Your task to perform on an android device: Open accessibility settings Image 0: 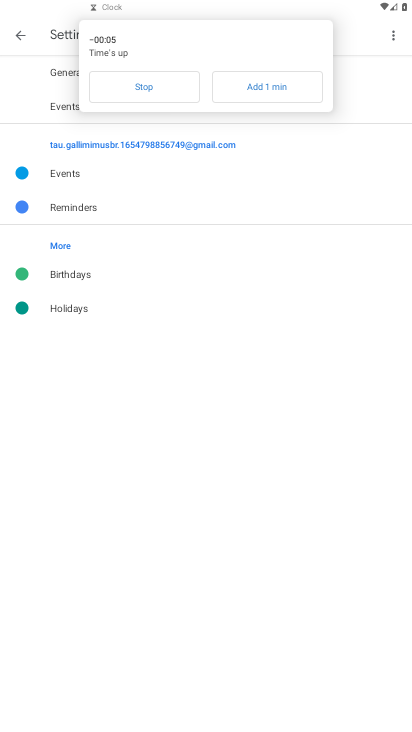
Step 0: press home button
Your task to perform on an android device: Open accessibility settings Image 1: 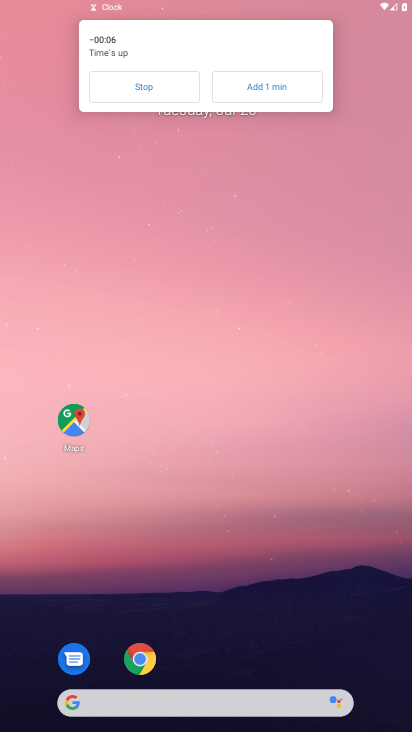
Step 1: click (160, 90)
Your task to perform on an android device: Open accessibility settings Image 2: 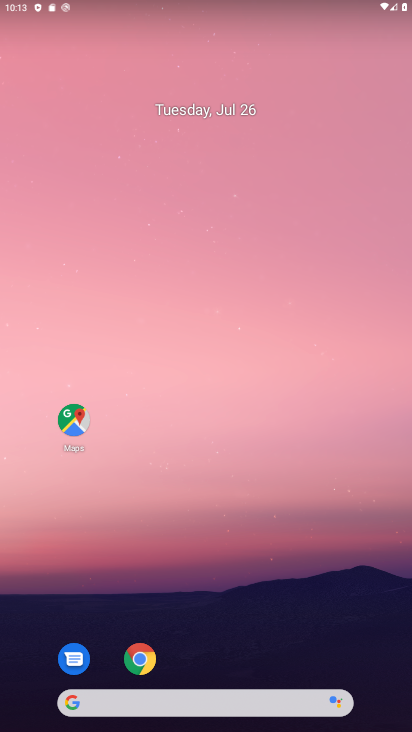
Step 2: drag from (280, 634) to (288, 24)
Your task to perform on an android device: Open accessibility settings Image 3: 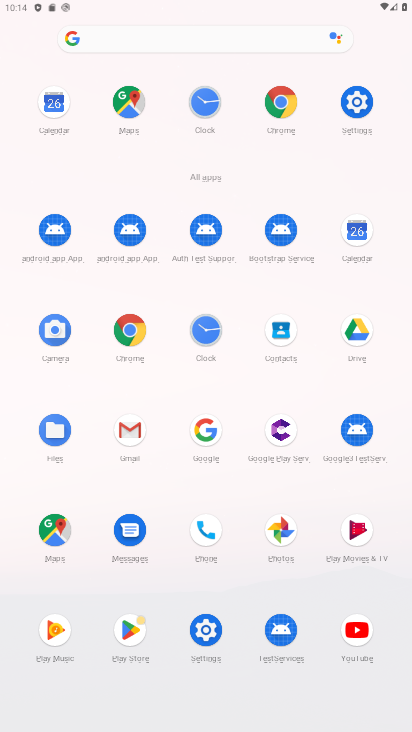
Step 3: click (204, 633)
Your task to perform on an android device: Open accessibility settings Image 4: 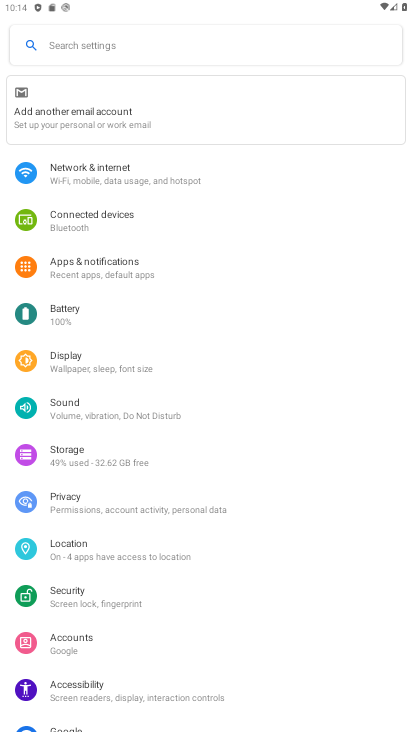
Step 4: drag from (66, 626) to (111, 32)
Your task to perform on an android device: Open accessibility settings Image 5: 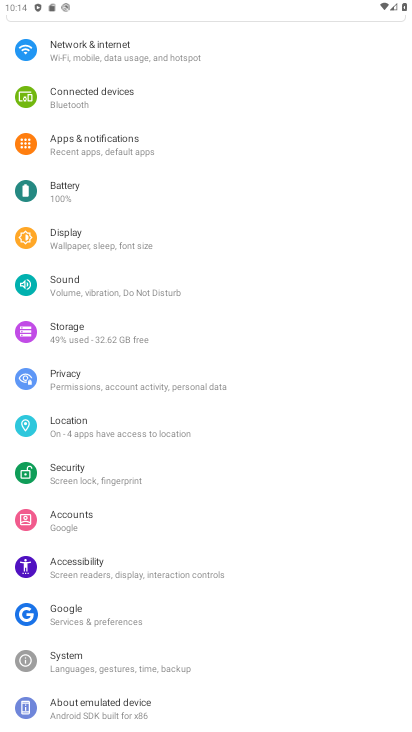
Step 5: click (84, 539)
Your task to perform on an android device: Open accessibility settings Image 6: 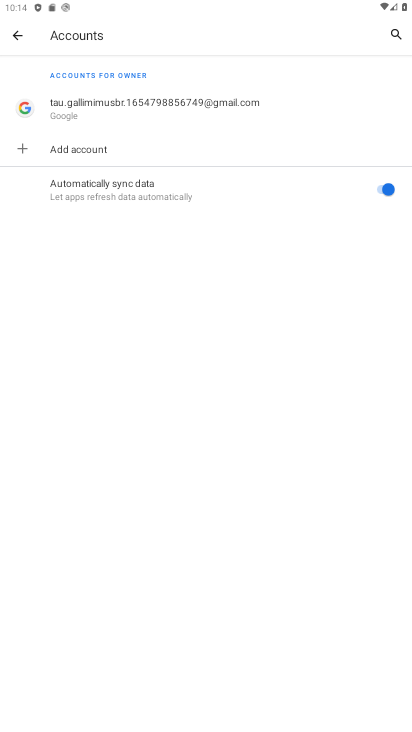
Step 6: press back button
Your task to perform on an android device: Open accessibility settings Image 7: 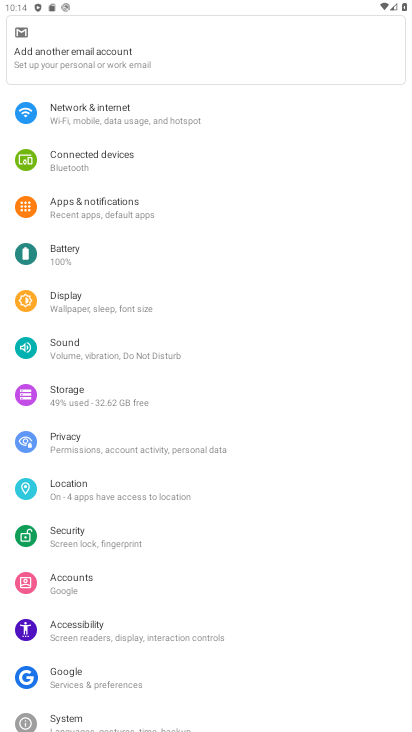
Step 7: click (38, 632)
Your task to perform on an android device: Open accessibility settings Image 8: 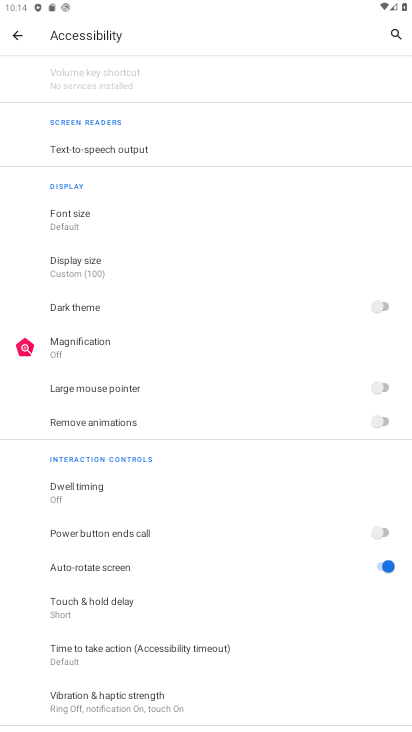
Step 8: task complete